Your task to perform on an android device: open a bookmark in the chrome app Image 0: 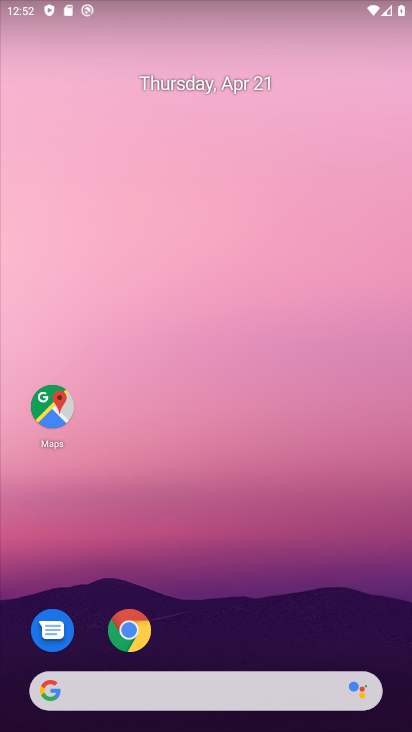
Step 0: click (145, 636)
Your task to perform on an android device: open a bookmark in the chrome app Image 1: 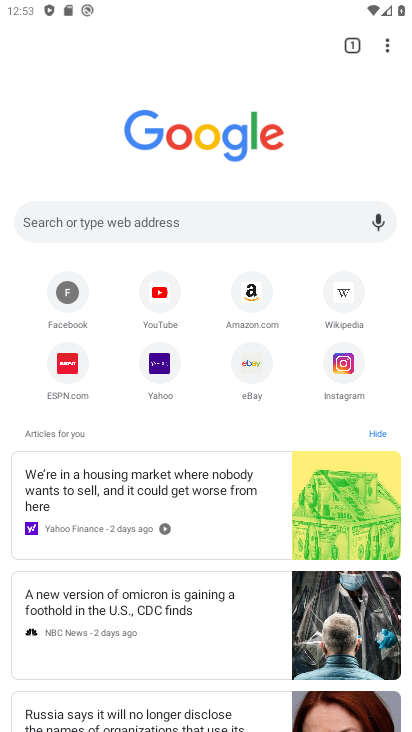
Step 1: click (390, 49)
Your task to perform on an android device: open a bookmark in the chrome app Image 2: 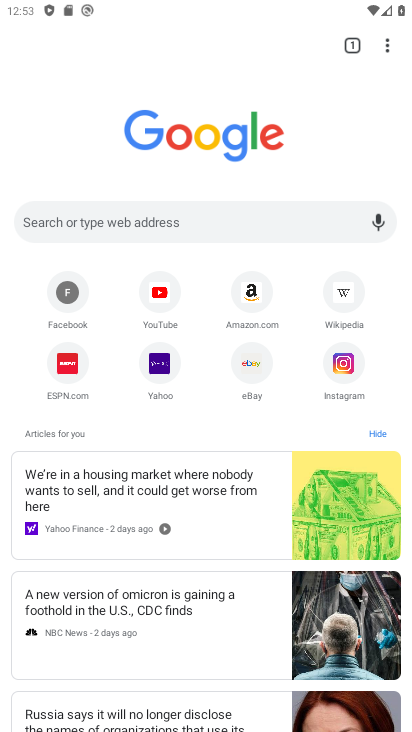
Step 2: click (384, 41)
Your task to perform on an android device: open a bookmark in the chrome app Image 3: 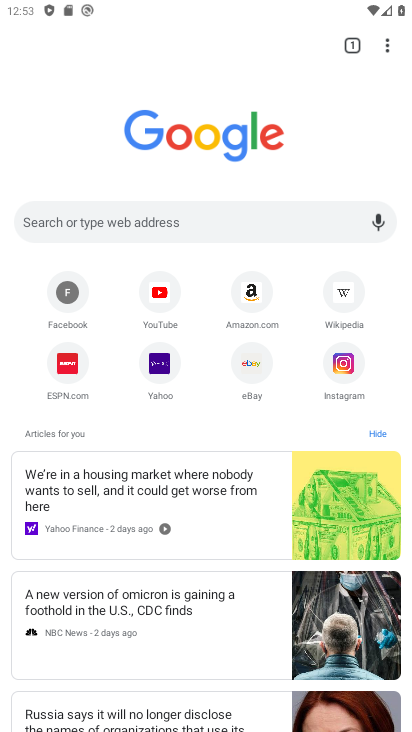
Step 3: click (389, 49)
Your task to perform on an android device: open a bookmark in the chrome app Image 4: 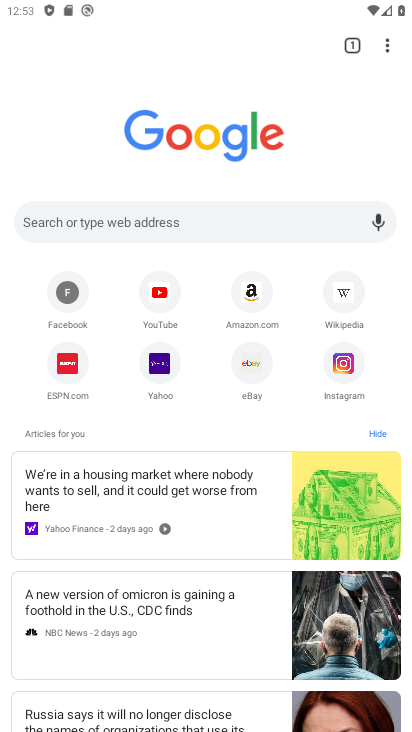
Step 4: click (385, 44)
Your task to perform on an android device: open a bookmark in the chrome app Image 5: 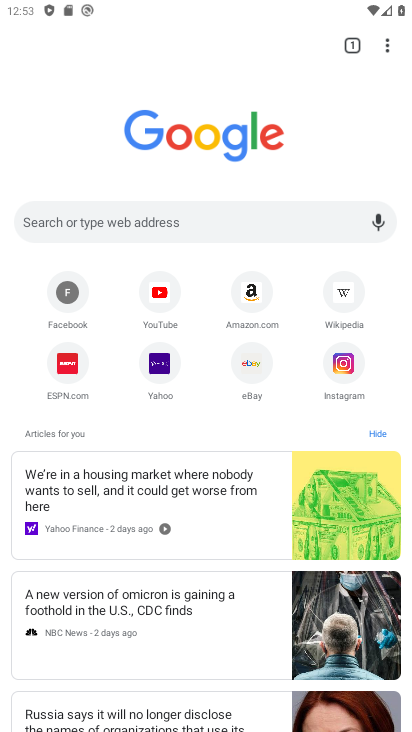
Step 5: click (386, 48)
Your task to perform on an android device: open a bookmark in the chrome app Image 6: 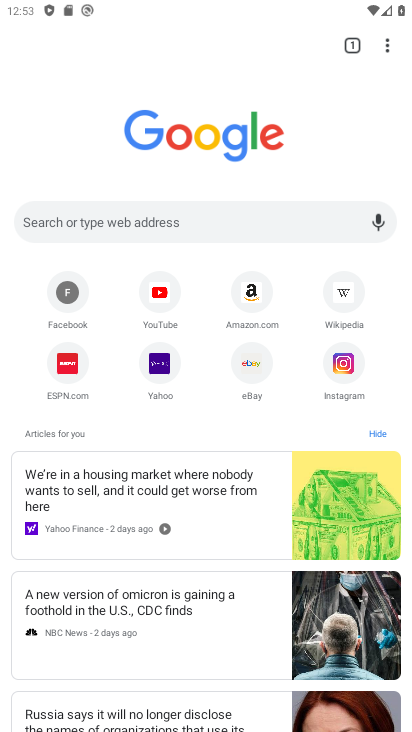
Step 6: click (379, 46)
Your task to perform on an android device: open a bookmark in the chrome app Image 7: 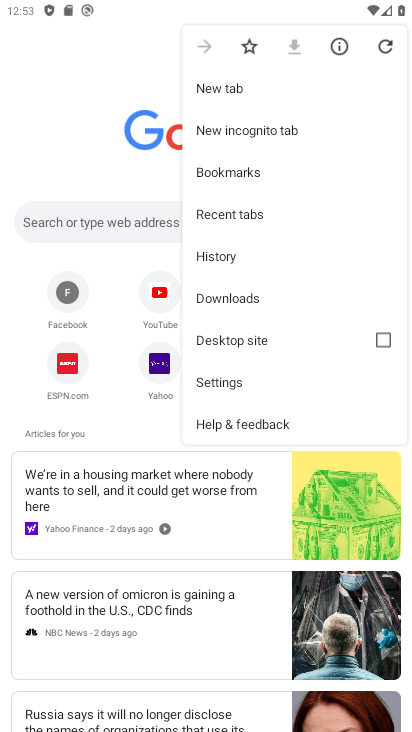
Step 7: click (254, 181)
Your task to perform on an android device: open a bookmark in the chrome app Image 8: 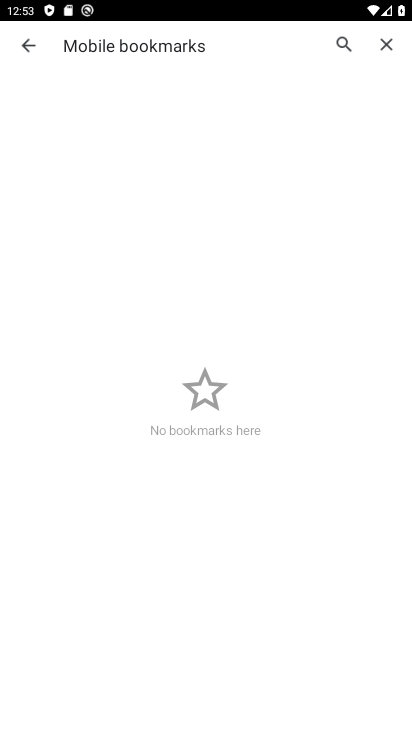
Step 8: task complete